Your task to perform on an android device: Go to calendar. Show me events next week Image 0: 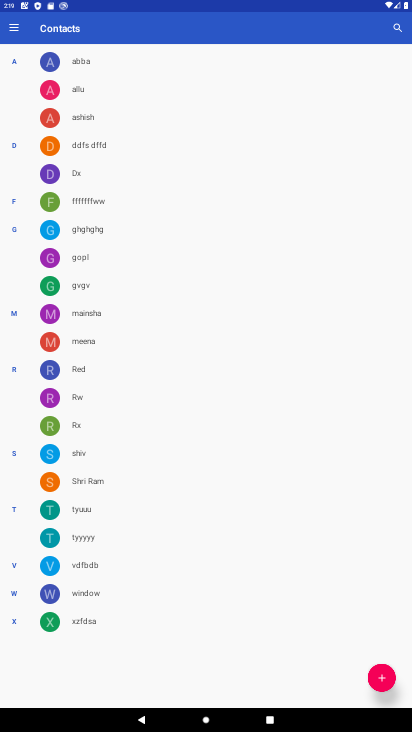
Step 0: press home button
Your task to perform on an android device: Go to calendar. Show me events next week Image 1: 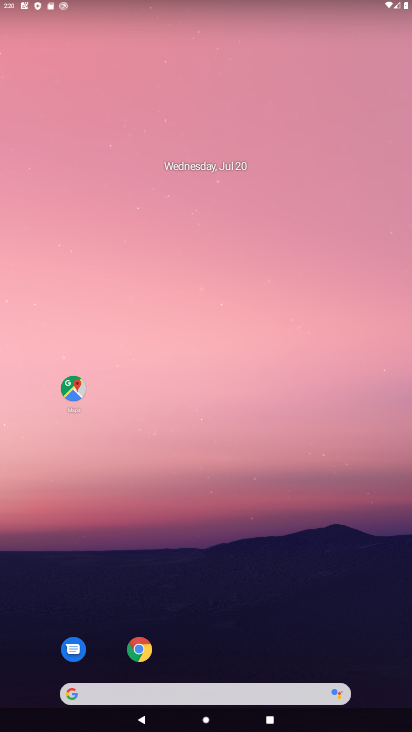
Step 1: drag from (196, 622) to (189, 0)
Your task to perform on an android device: Go to calendar. Show me events next week Image 2: 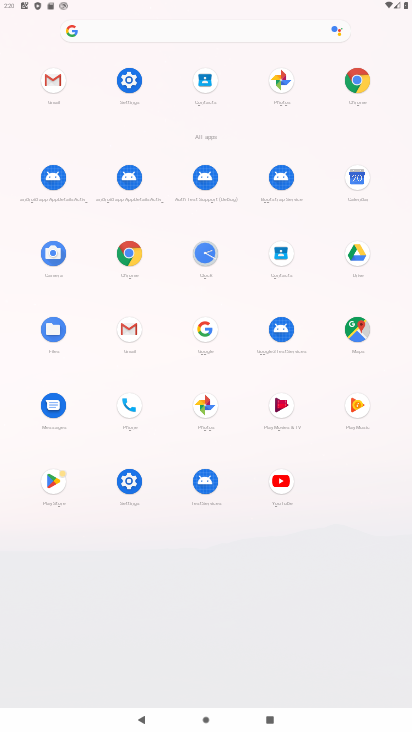
Step 2: click (355, 183)
Your task to perform on an android device: Go to calendar. Show me events next week Image 3: 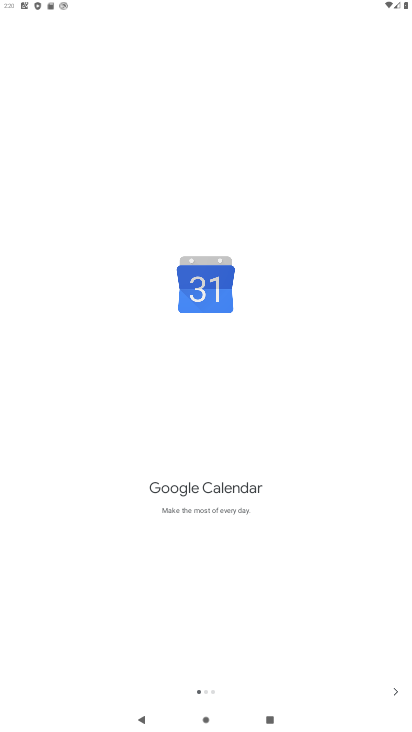
Step 3: click (395, 687)
Your task to perform on an android device: Go to calendar. Show me events next week Image 4: 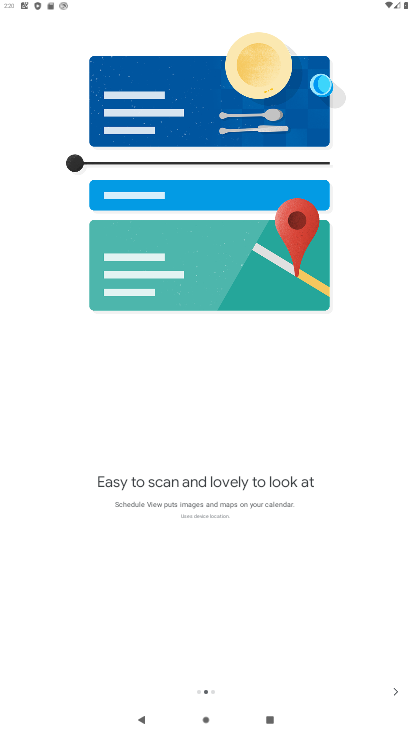
Step 4: click (387, 695)
Your task to perform on an android device: Go to calendar. Show me events next week Image 5: 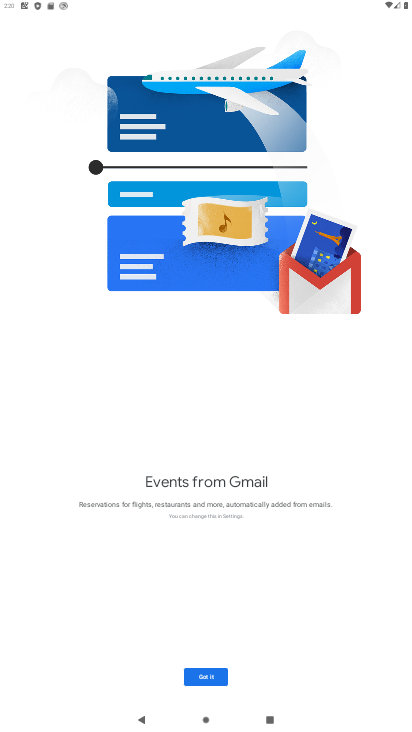
Step 5: click (215, 674)
Your task to perform on an android device: Go to calendar. Show me events next week Image 6: 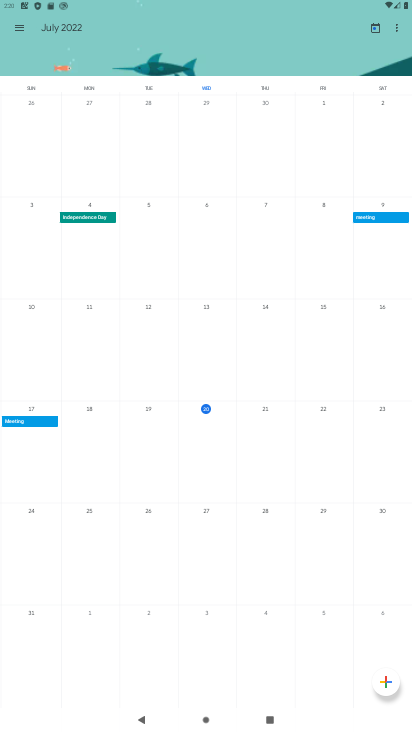
Step 6: click (18, 28)
Your task to perform on an android device: Go to calendar. Show me events next week Image 7: 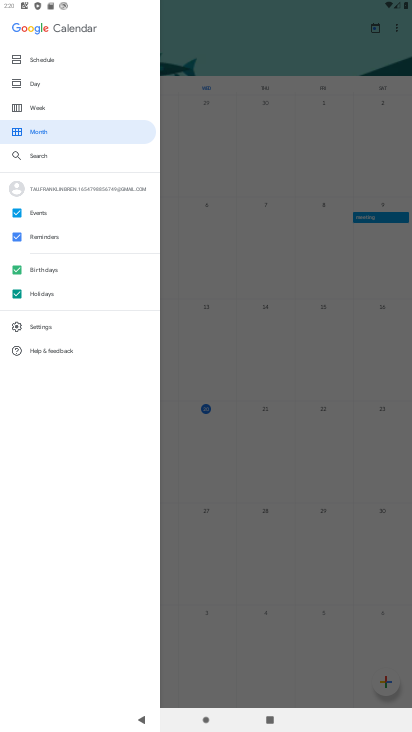
Step 7: click (50, 293)
Your task to perform on an android device: Go to calendar. Show me events next week Image 8: 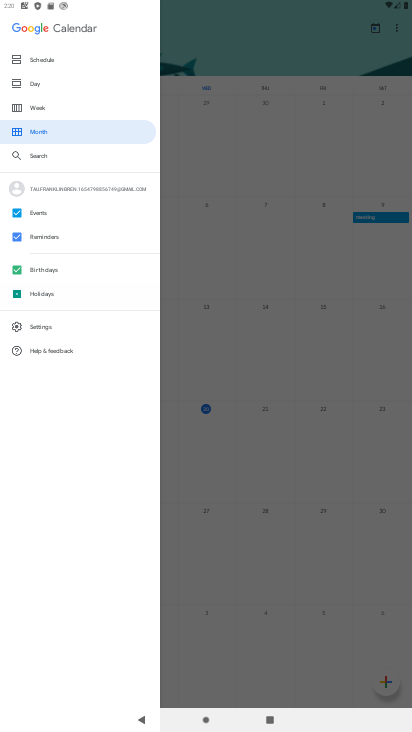
Step 8: click (50, 266)
Your task to perform on an android device: Go to calendar. Show me events next week Image 9: 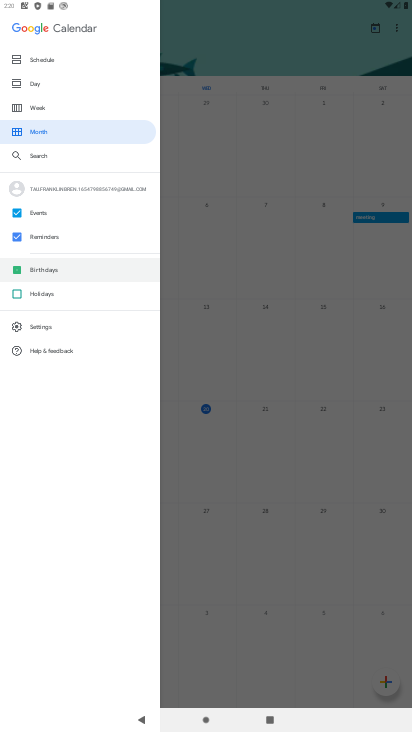
Step 9: click (43, 236)
Your task to perform on an android device: Go to calendar. Show me events next week Image 10: 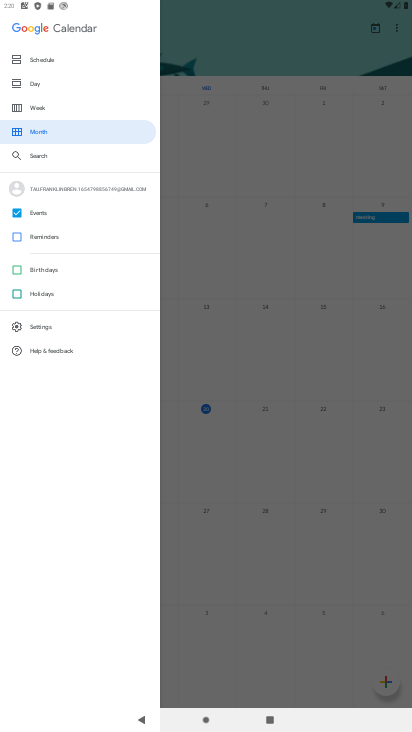
Step 10: click (45, 102)
Your task to perform on an android device: Go to calendar. Show me events next week Image 11: 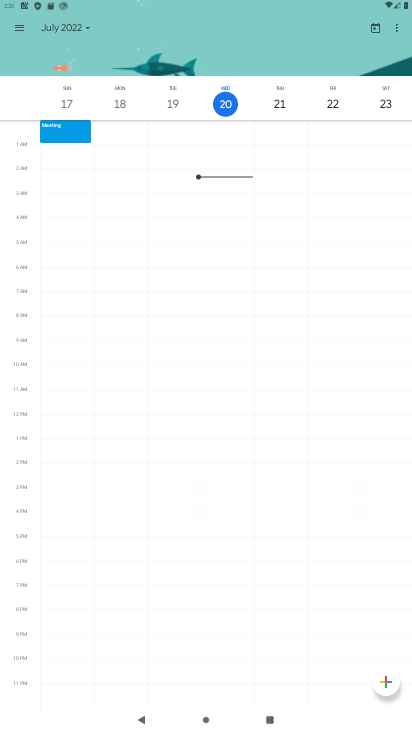
Step 11: task complete